Your task to perform on an android device: open a new tab in the chrome app Image 0: 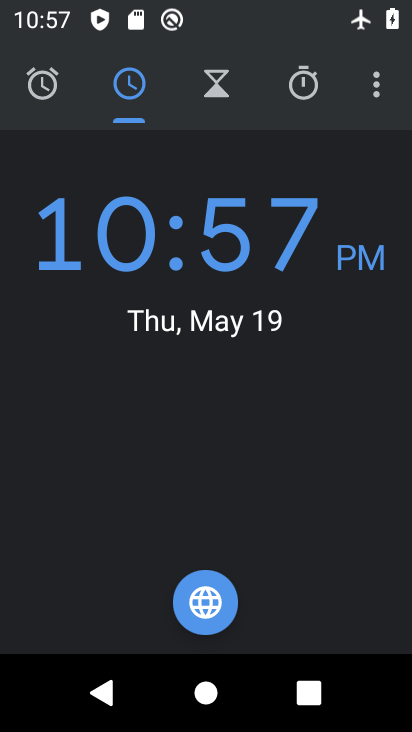
Step 0: press home button
Your task to perform on an android device: open a new tab in the chrome app Image 1: 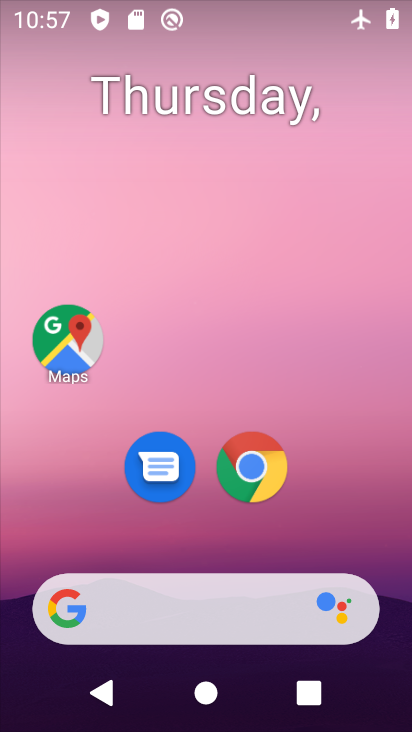
Step 1: click (252, 474)
Your task to perform on an android device: open a new tab in the chrome app Image 2: 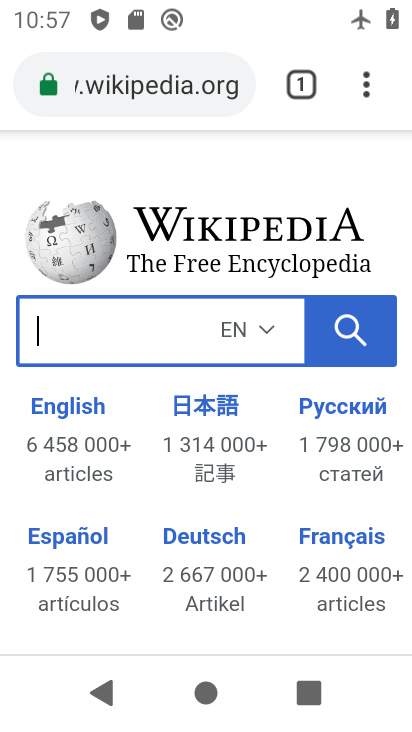
Step 2: click (366, 87)
Your task to perform on an android device: open a new tab in the chrome app Image 3: 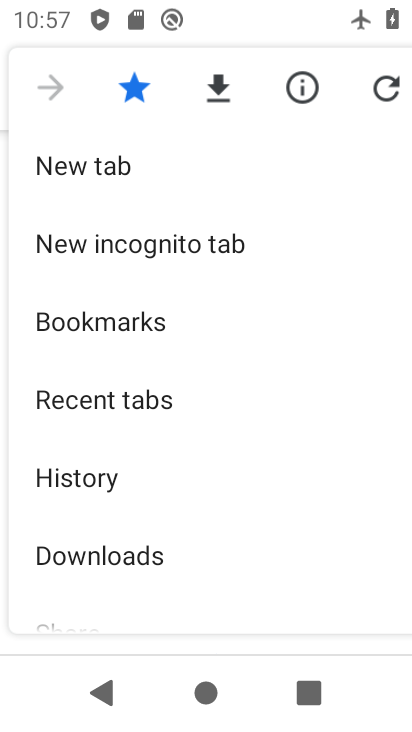
Step 3: click (43, 176)
Your task to perform on an android device: open a new tab in the chrome app Image 4: 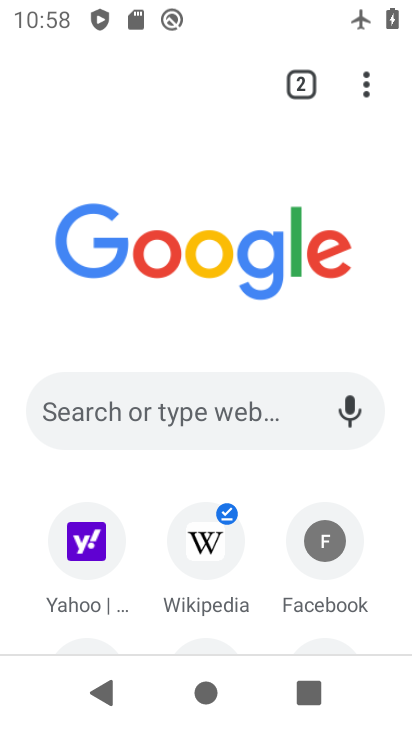
Step 4: task complete